Your task to perform on an android device: see creations saved in the google photos Image 0: 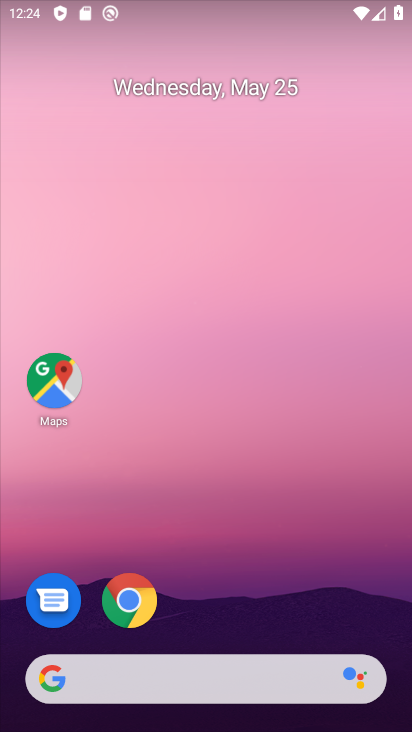
Step 0: drag from (261, 612) to (198, 211)
Your task to perform on an android device: see creations saved in the google photos Image 1: 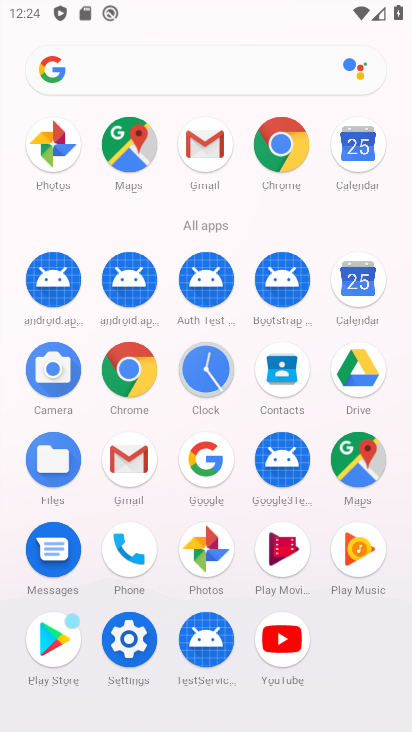
Step 1: click (57, 144)
Your task to perform on an android device: see creations saved in the google photos Image 2: 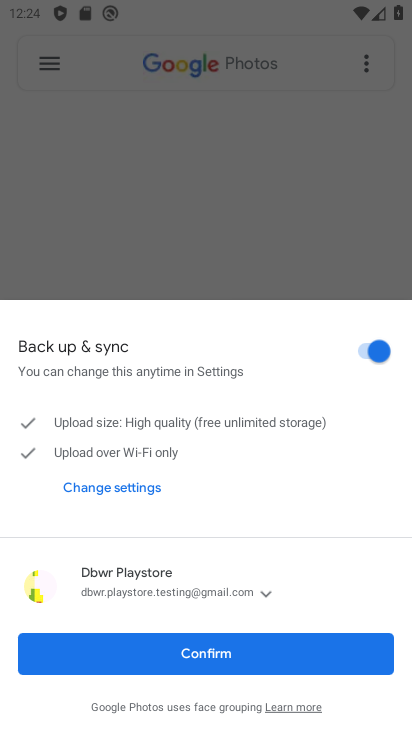
Step 2: click (234, 648)
Your task to perform on an android device: see creations saved in the google photos Image 3: 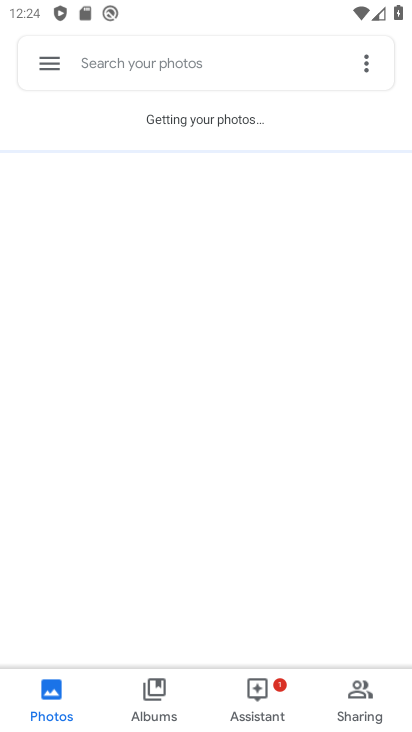
Step 3: click (181, 65)
Your task to perform on an android device: see creations saved in the google photos Image 4: 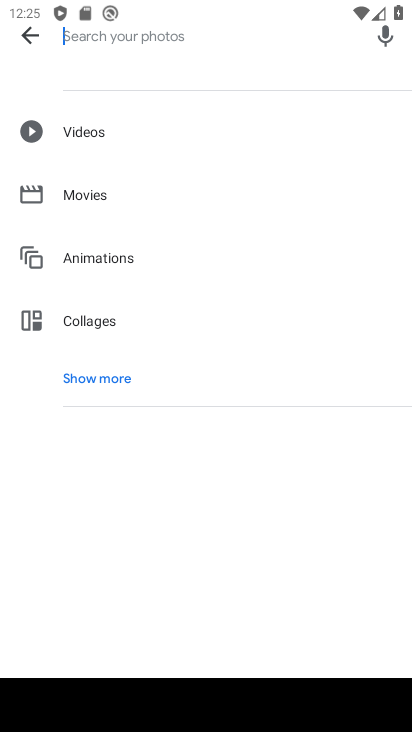
Step 4: click (102, 374)
Your task to perform on an android device: see creations saved in the google photos Image 5: 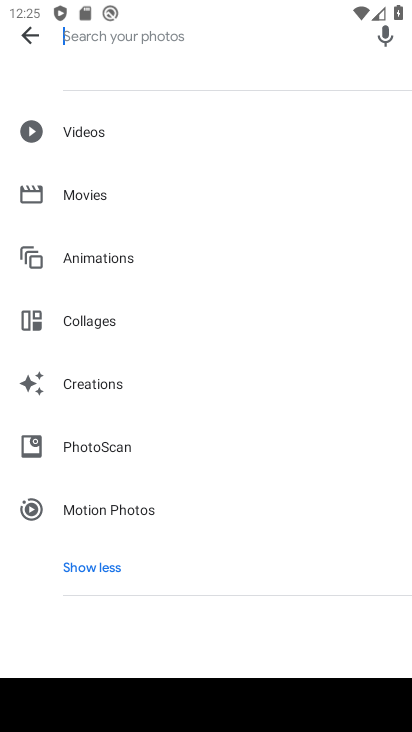
Step 5: click (102, 374)
Your task to perform on an android device: see creations saved in the google photos Image 6: 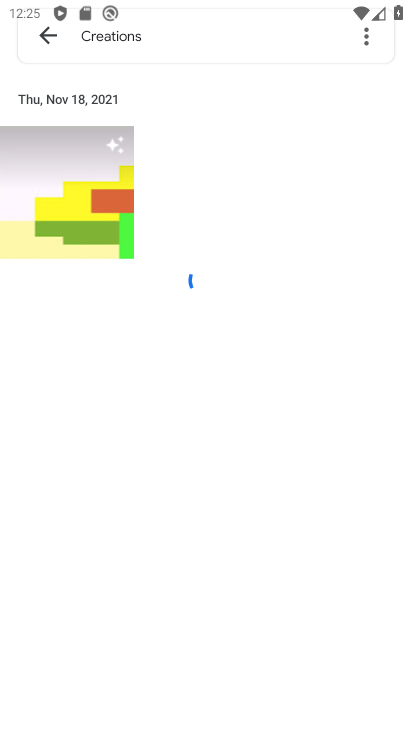
Step 6: task complete